Your task to perform on an android device: clear all cookies in the chrome app Image 0: 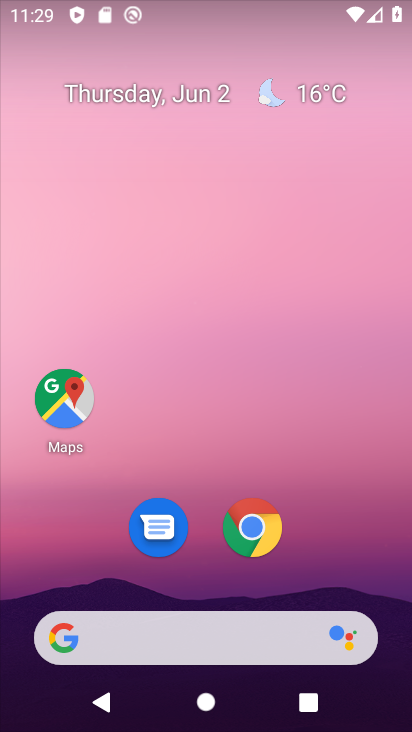
Step 0: click (253, 536)
Your task to perform on an android device: clear all cookies in the chrome app Image 1: 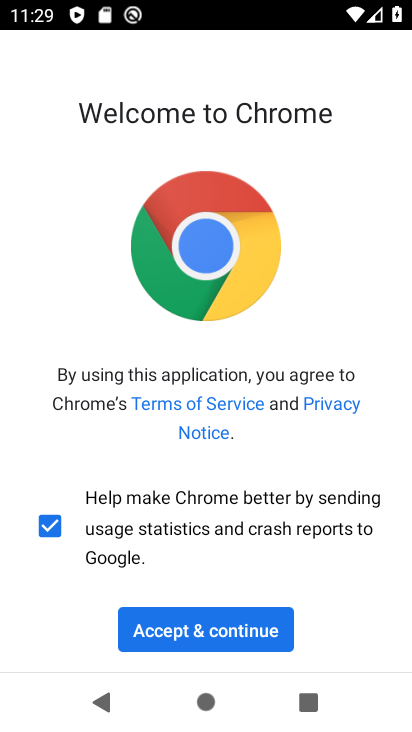
Step 1: click (184, 650)
Your task to perform on an android device: clear all cookies in the chrome app Image 2: 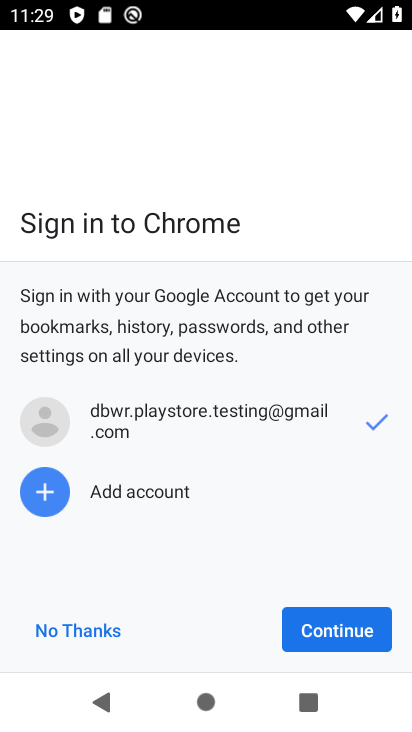
Step 2: click (308, 627)
Your task to perform on an android device: clear all cookies in the chrome app Image 3: 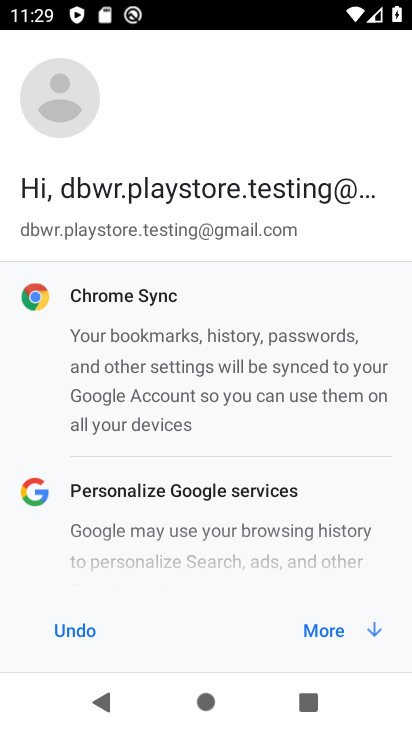
Step 3: click (325, 618)
Your task to perform on an android device: clear all cookies in the chrome app Image 4: 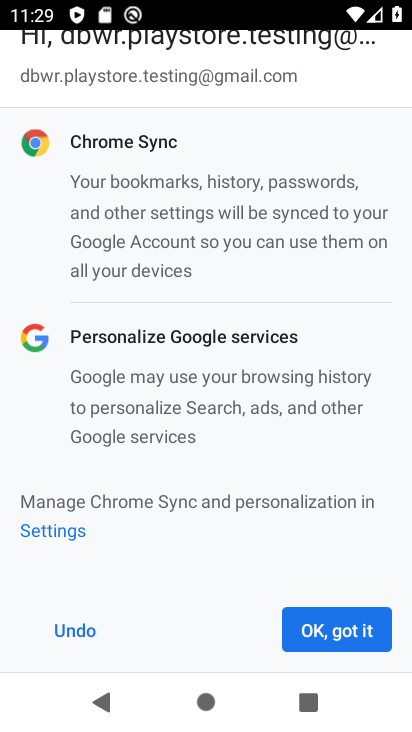
Step 4: click (338, 632)
Your task to perform on an android device: clear all cookies in the chrome app Image 5: 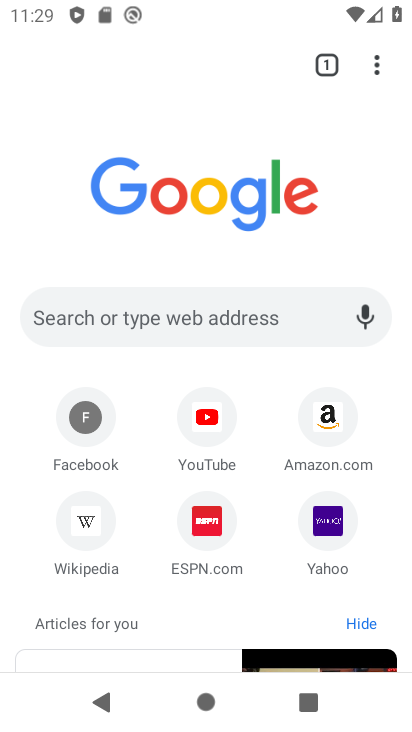
Step 5: drag from (371, 54) to (178, 545)
Your task to perform on an android device: clear all cookies in the chrome app Image 6: 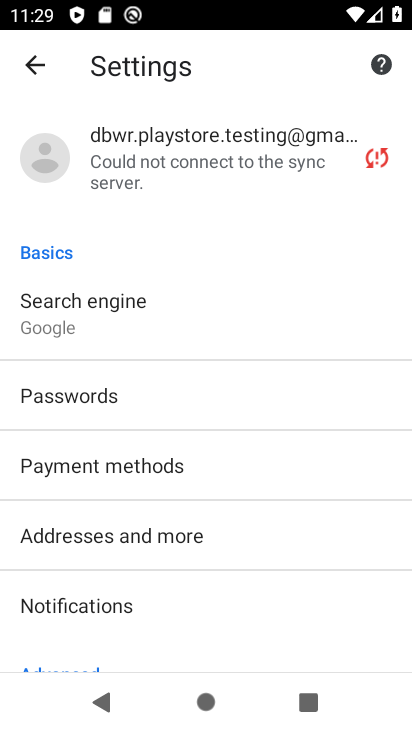
Step 6: drag from (138, 513) to (173, 205)
Your task to perform on an android device: clear all cookies in the chrome app Image 7: 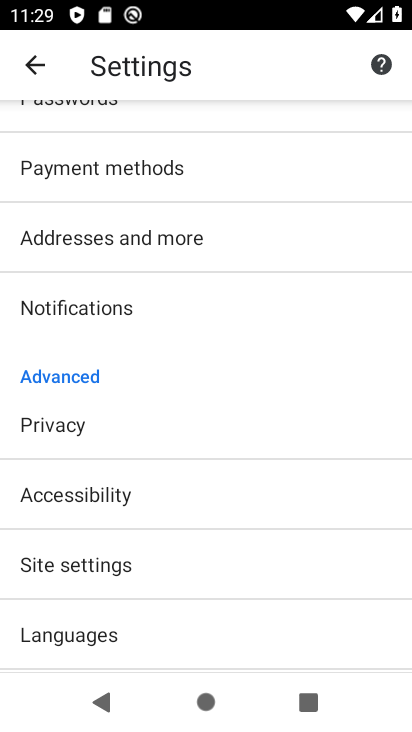
Step 7: click (75, 431)
Your task to perform on an android device: clear all cookies in the chrome app Image 8: 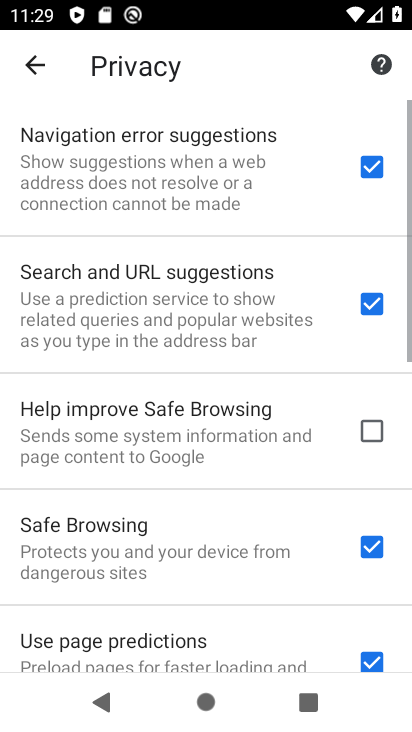
Step 8: drag from (162, 598) to (66, 37)
Your task to perform on an android device: clear all cookies in the chrome app Image 9: 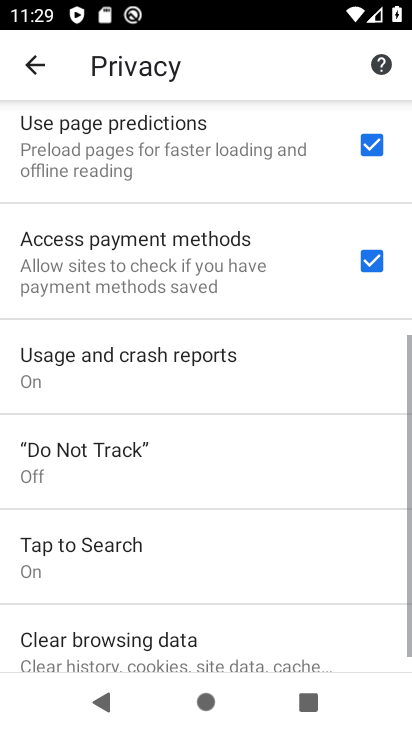
Step 9: click (135, 623)
Your task to perform on an android device: clear all cookies in the chrome app Image 10: 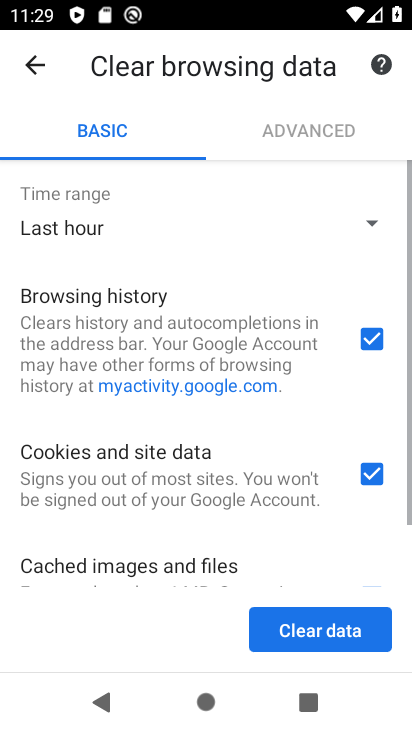
Step 10: click (310, 633)
Your task to perform on an android device: clear all cookies in the chrome app Image 11: 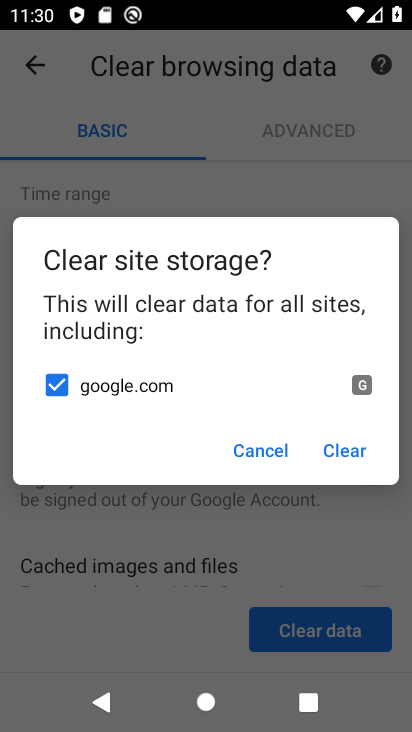
Step 11: click (352, 454)
Your task to perform on an android device: clear all cookies in the chrome app Image 12: 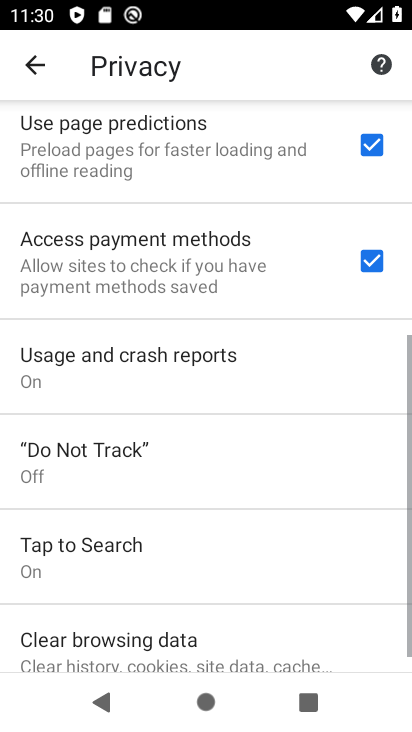
Step 12: task complete